Your task to perform on an android device: delete location history Image 0: 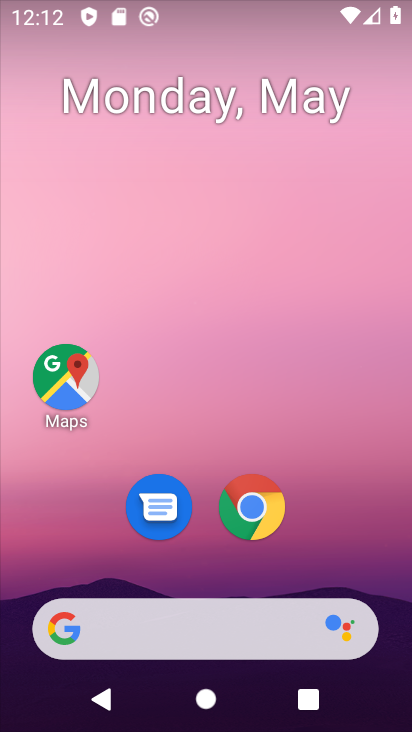
Step 0: drag from (227, 722) to (200, 57)
Your task to perform on an android device: delete location history Image 1: 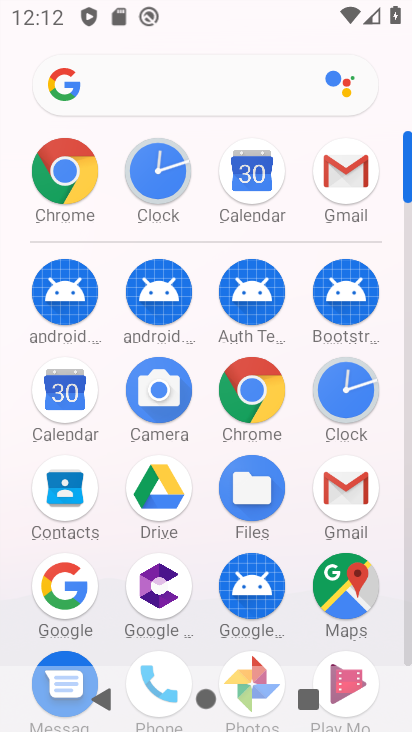
Step 1: drag from (190, 638) to (186, 204)
Your task to perform on an android device: delete location history Image 2: 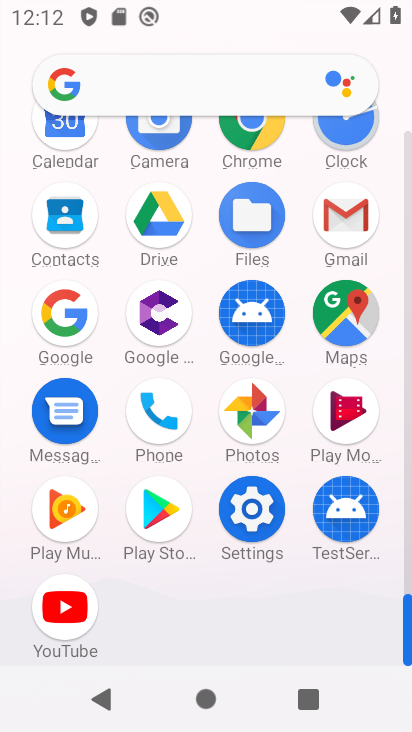
Step 2: click (245, 493)
Your task to perform on an android device: delete location history Image 3: 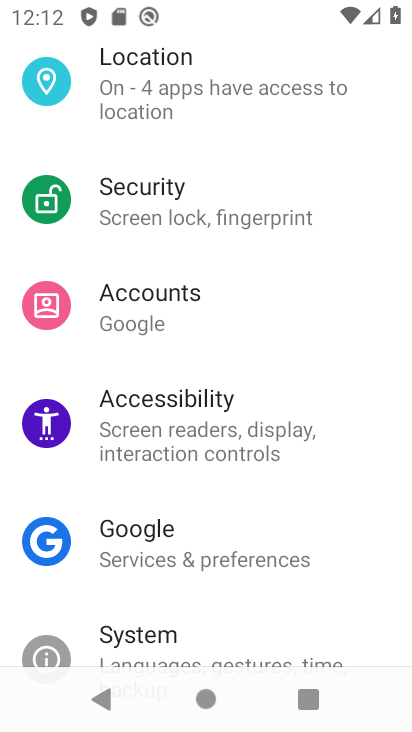
Step 3: click (134, 98)
Your task to perform on an android device: delete location history Image 4: 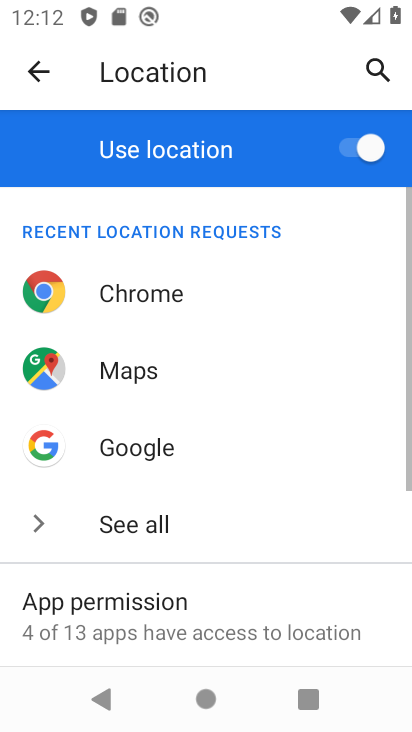
Step 4: drag from (156, 643) to (157, 79)
Your task to perform on an android device: delete location history Image 5: 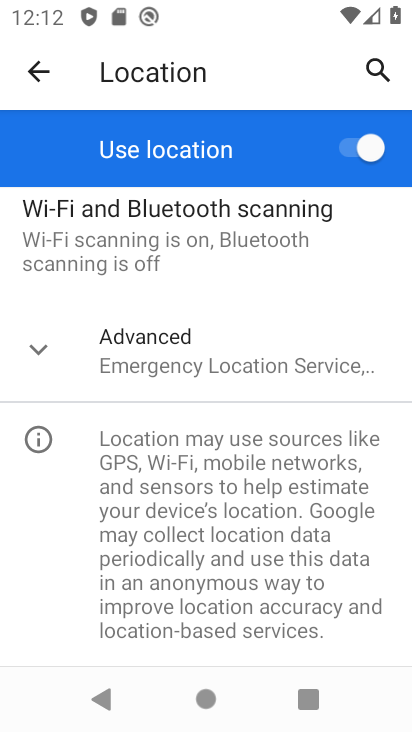
Step 5: drag from (165, 561) to (155, 243)
Your task to perform on an android device: delete location history Image 6: 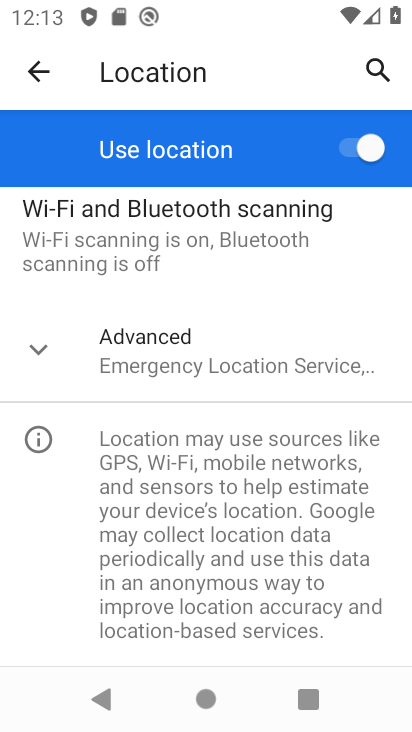
Step 6: press home button
Your task to perform on an android device: delete location history Image 7: 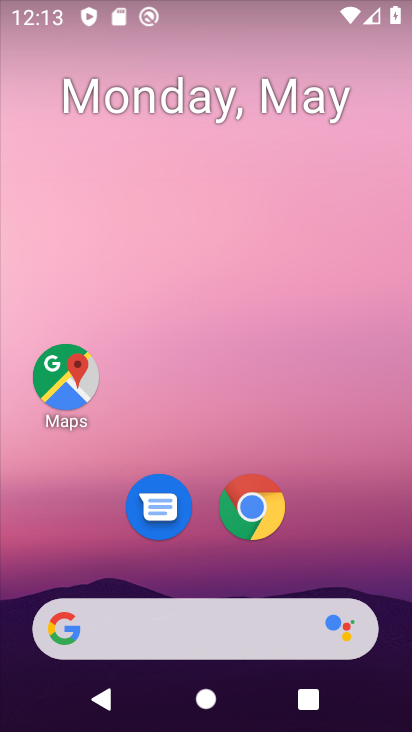
Step 7: drag from (232, 715) to (238, 46)
Your task to perform on an android device: delete location history Image 8: 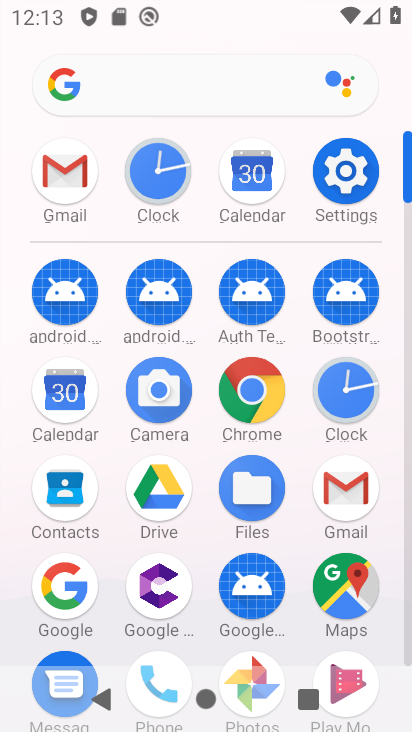
Step 8: click (354, 602)
Your task to perform on an android device: delete location history Image 9: 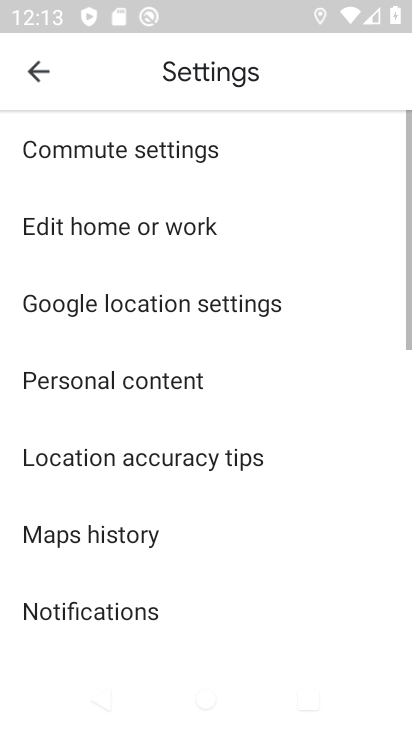
Step 9: click (39, 69)
Your task to perform on an android device: delete location history Image 10: 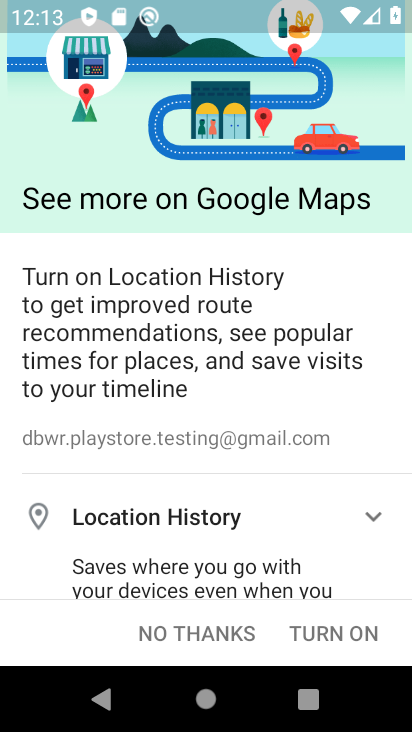
Step 10: click (215, 632)
Your task to perform on an android device: delete location history Image 11: 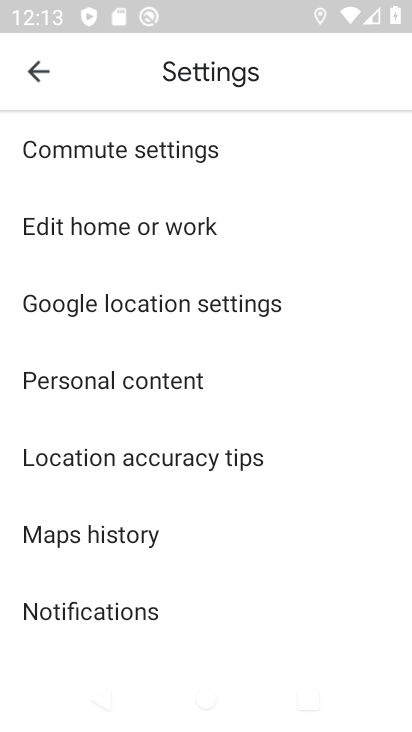
Step 11: click (33, 63)
Your task to perform on an android device: delete location history Image 12: 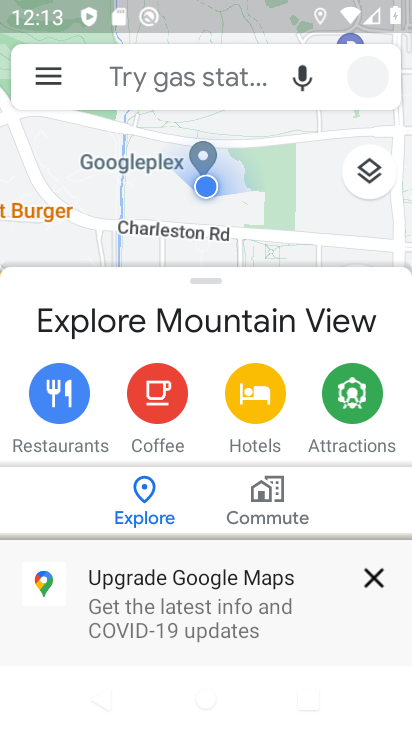
Step 12: click (42, 70)
Your task to perform on an android device: delete location history Image 13: 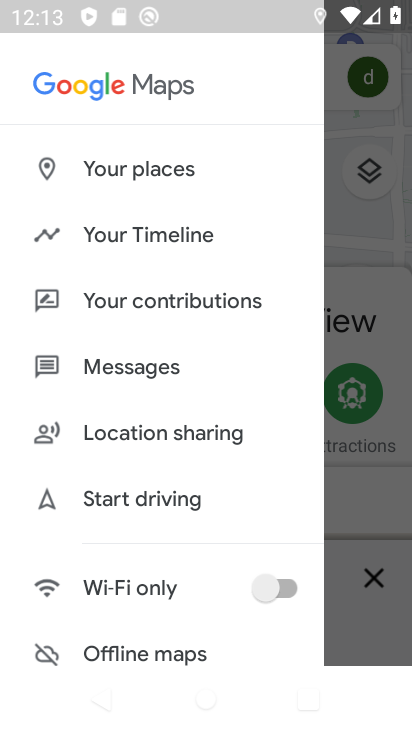
Step 13: click (134, 229)
Your task to perform on an android device: delete location history Image 14: 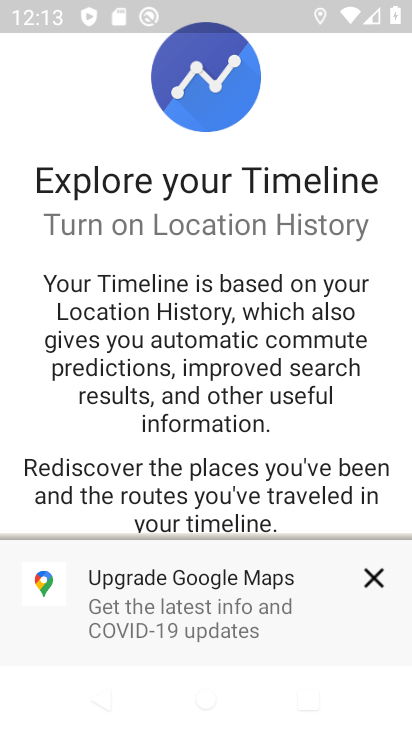
Step 14: click (365, 577)
Your task to perform on an android device: delete location history Image 15: 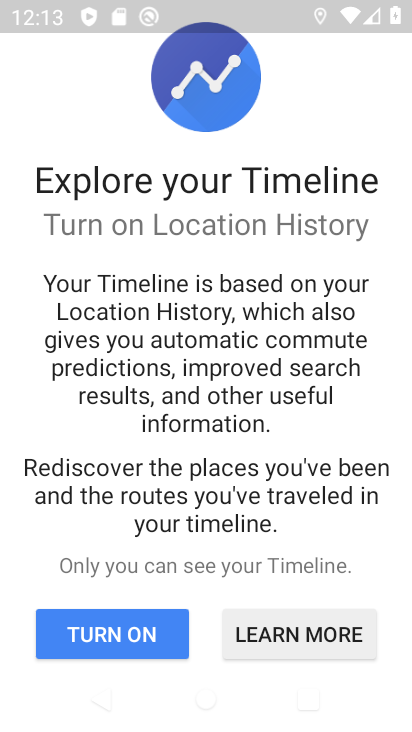
Step 15: drag from (224, 585) to (210, 274)
Your task to perform on an android device: delete location history Image 16: 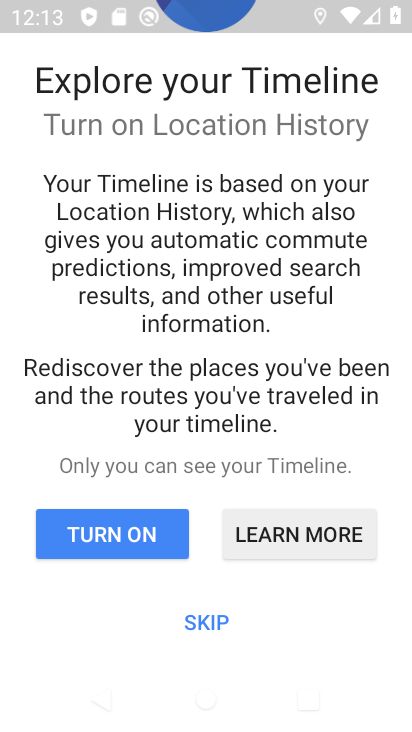
Step 16: click (207, 619)
Your task to perform on an android device: delete location history Image 17: 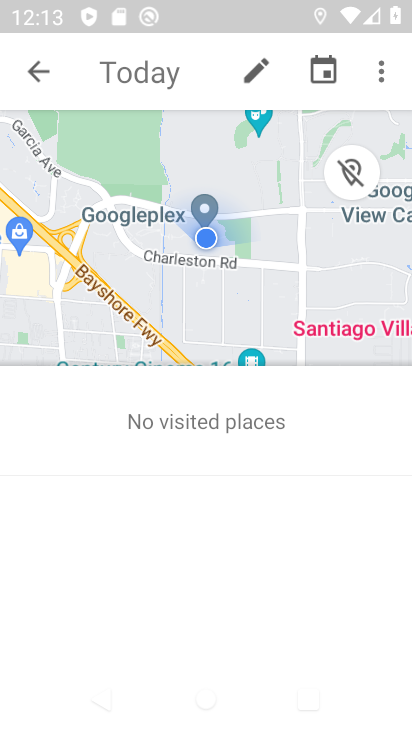
Step 17: click (381, 65)
Your task to perform on an android device: delete location history Image 18: 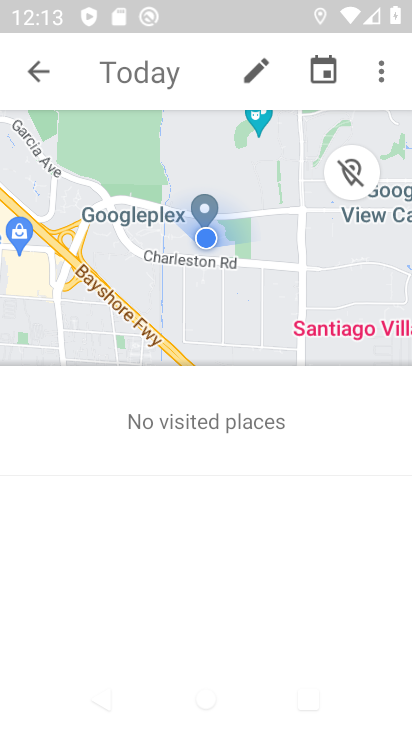
Step 18: click (382, 77)
Your task to perform on an android device: delete location history Image 19: 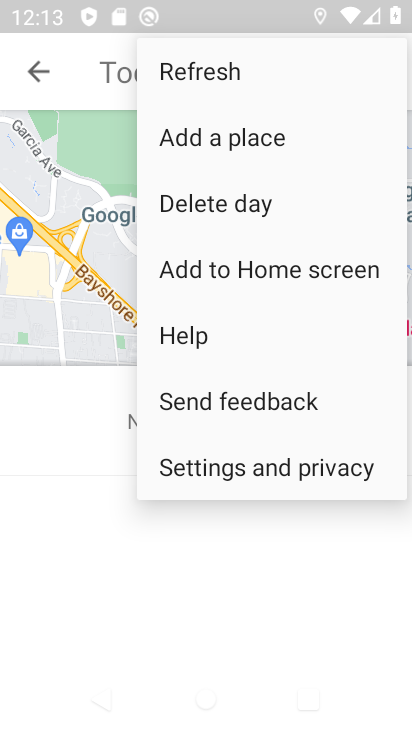
Step 19: click (224, 465)
Your task to perform on an android device: delete location history Image 20: 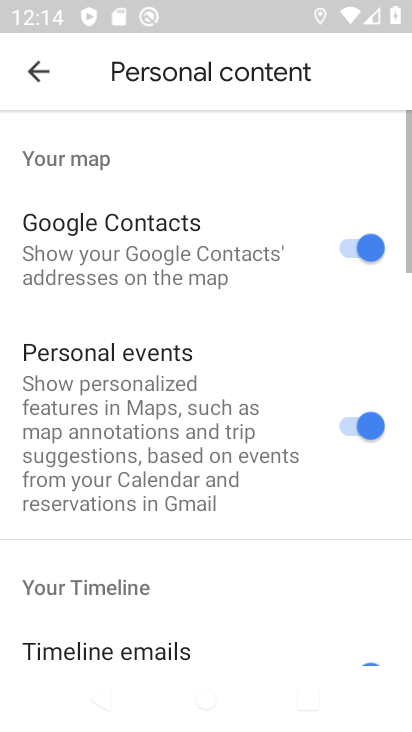
Step 20: drag from (218, 641) to (222, 159)
Your task to perform on an android device: delete location history Image 21: 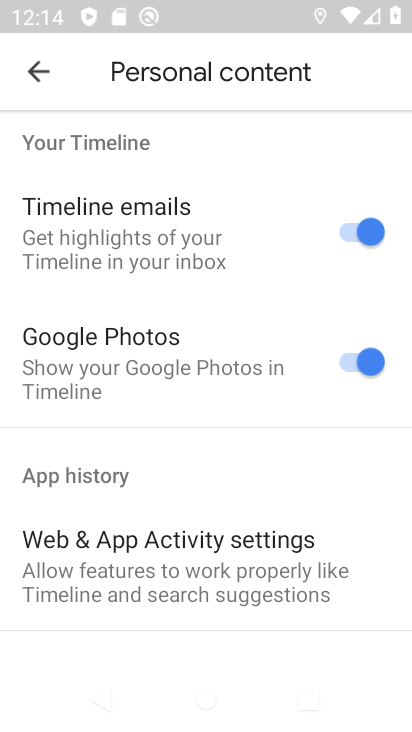
Step 21: drag from (159, 636) to (166, 323)
Your task to perform on an android device: delete location history Image 22: 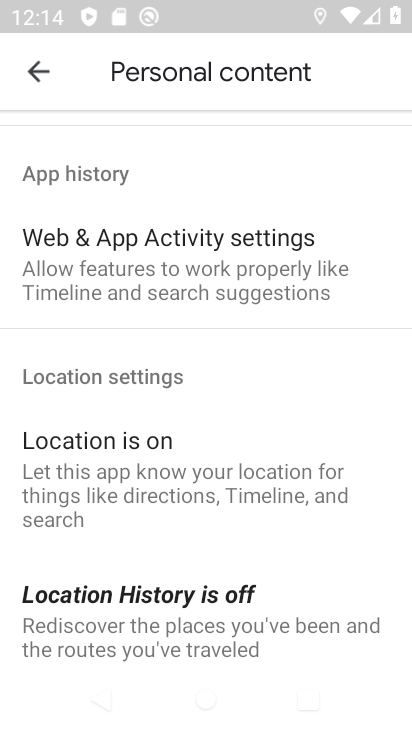
Step 22: drag from (129, 630) to (149, 272)
Your task to perform on an android device: delete location history Image 23: 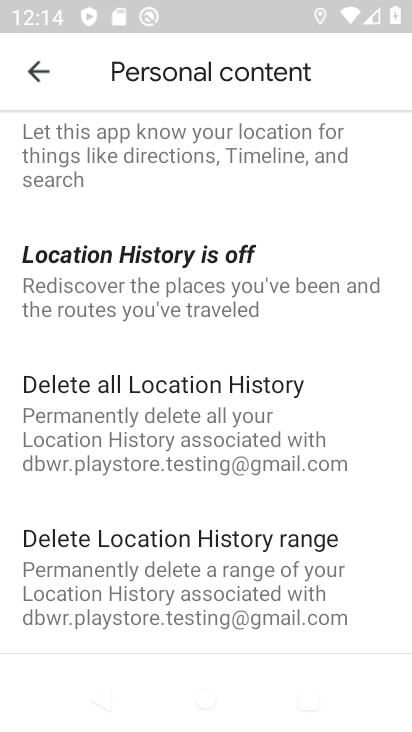
Step 23: click (177, 430)
Your task to perform on an android device: delete location history Image 24: 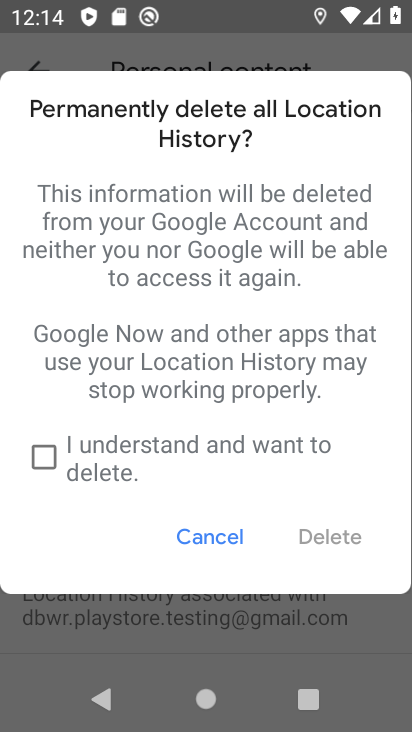
Step 24: click (40, 452)
Your task to perform on an android device: delete location history Image 25: 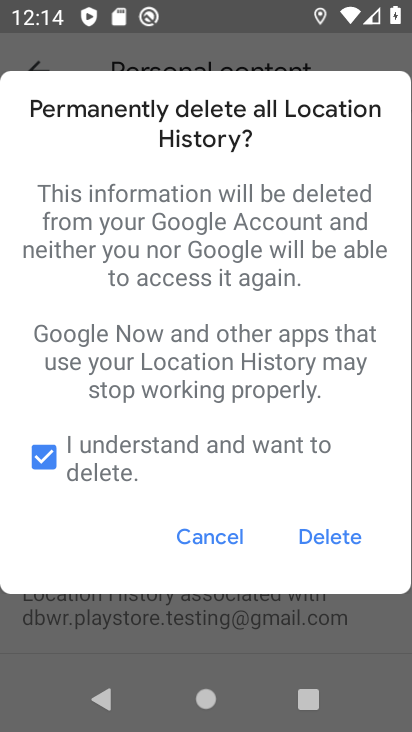
Step 25: click (328, 532)
Your task to perform on an android device: delete location history Image 26: 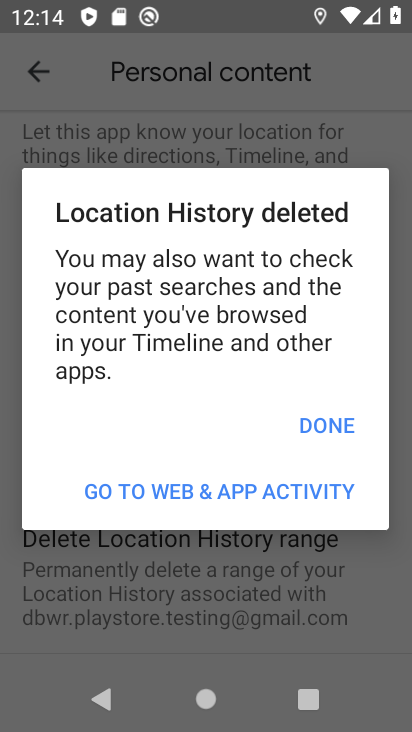
Step 26: click (327, 418)
Your task to perform on an android device: delete location history Image 27: 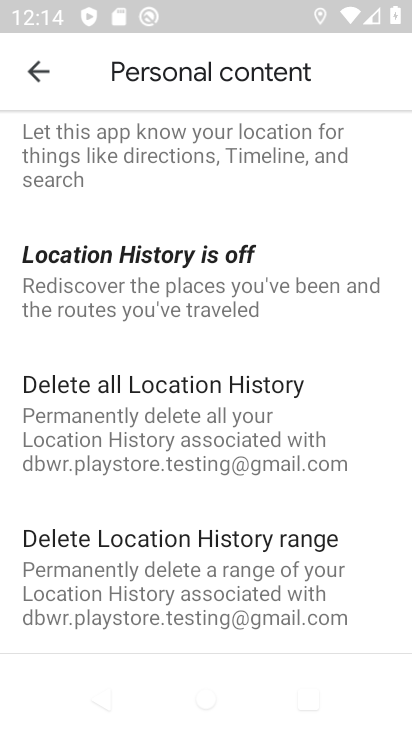
Step 27: task complete